Your task to perform on an android device: Search for Italian restaurants on Maps Image 0: 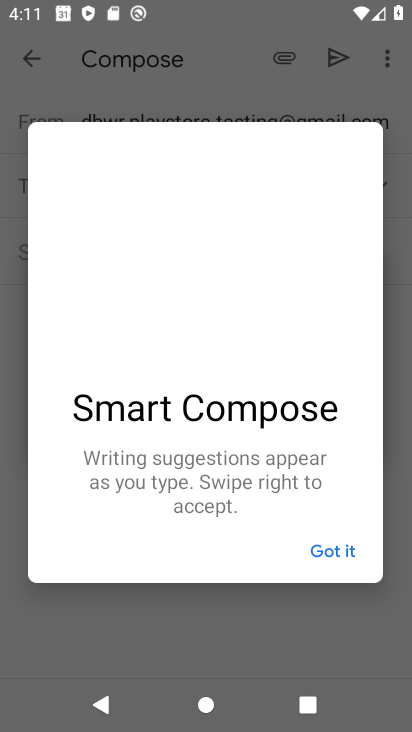
Step 0: press home button
Your task to perform on an android device: Search for Italian restaurants on Maps Image 1: 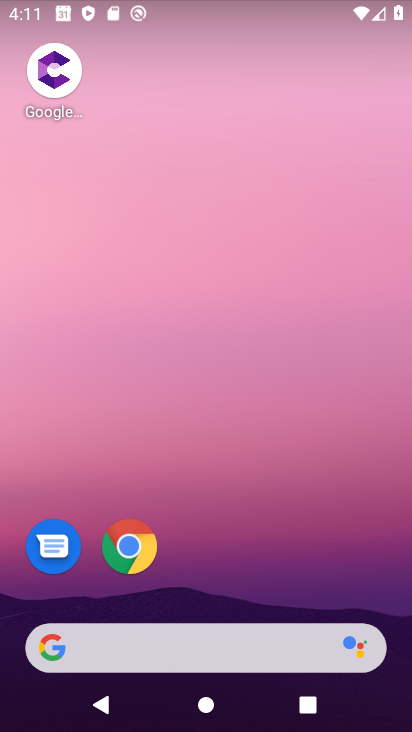
Step 1: drag from (205, 585) to (229, 194)
Your task to perform on an android device: Search for Italian restaurants on Maps Image 2: 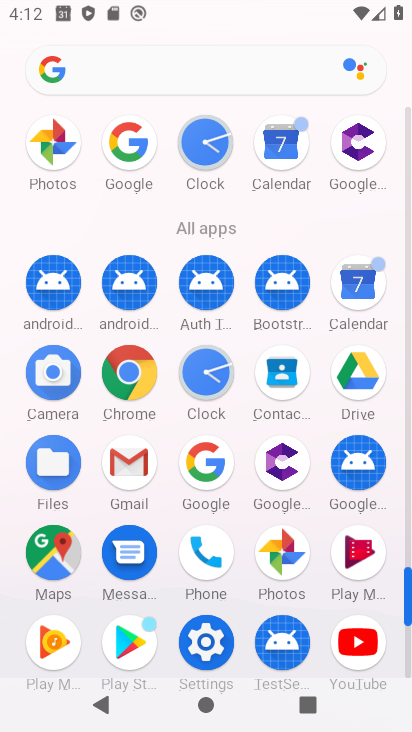
Step 2: click (40, 562)
Your task to perform on an android device: Search for Italian restaurants on Maps Image 3: 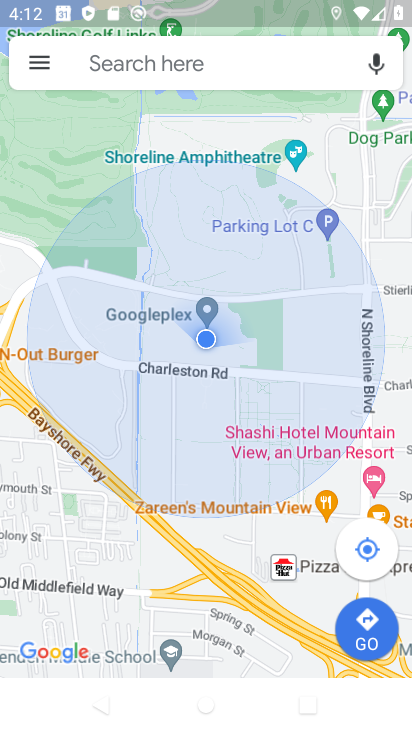
Step 3: click (87, 79)
Your task to perform on an android device: Search for Italian restaurants on Maps Image 4: 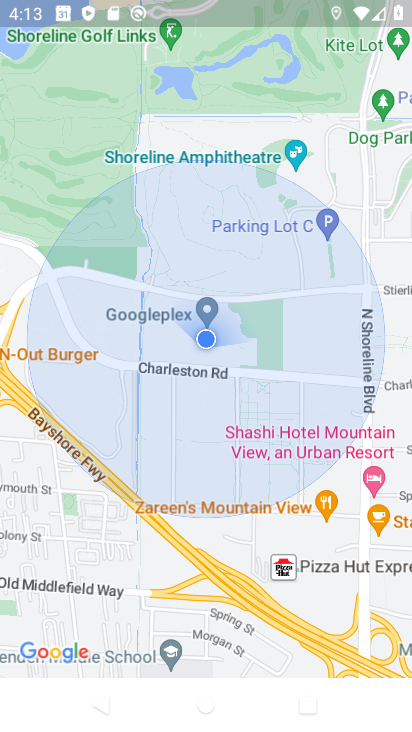
Step 4: drag from (189, 566) to (257, 158)
Your task to perform on an android device: Search for Italian restaurants on Maps Image 5: 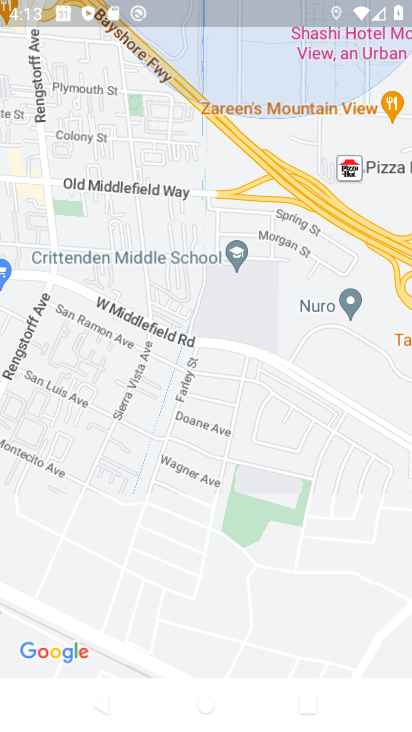
Step 5: drag from (251, 198) to (258, 729)
Your task to perform on an android device: Search for Italian restaurants on Maps Image 6: 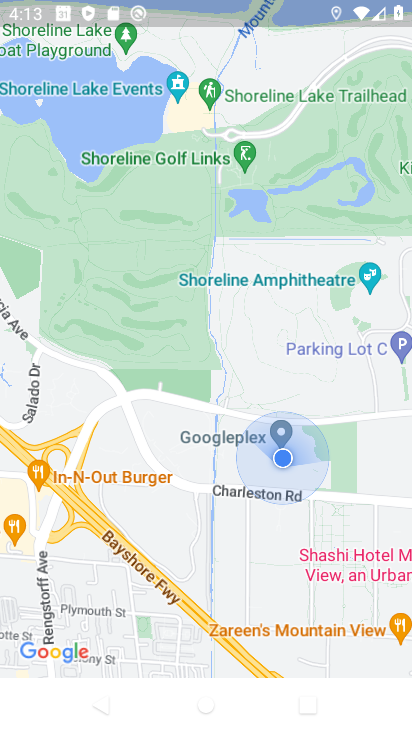
Step 6: drag from (255, 191) to (236, 714)
Your task to perform on an android device: Search for Italian restaurants on Maps Image 7: 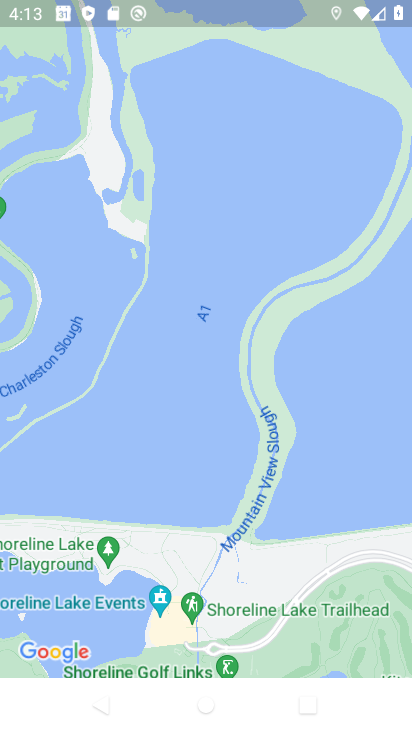
Step 7: press back button
Your task to perform on an android device: Search for Italian restaurants on Maps Image 8: 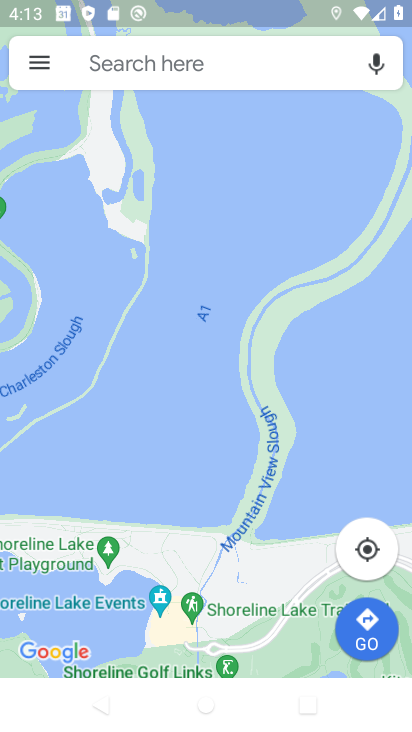
Step 8: click (183, 66)
Your task to perform on an android device: Search for Italian restaurants on Maps Image 9: 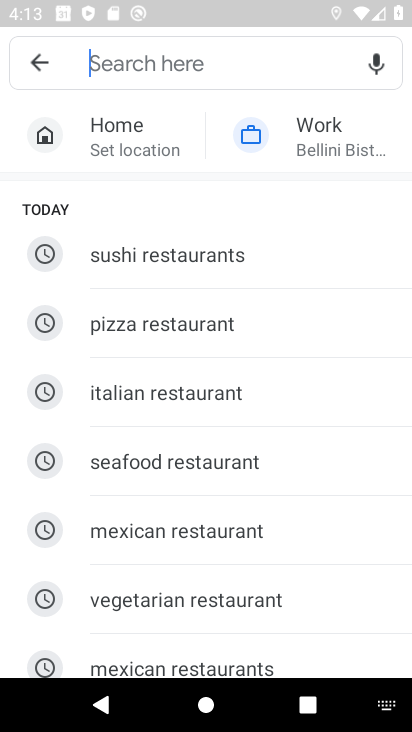
Step 9: click (168, 384)
Your task to perform on an android device: Search for Italian restaurants on Maps Image 10: 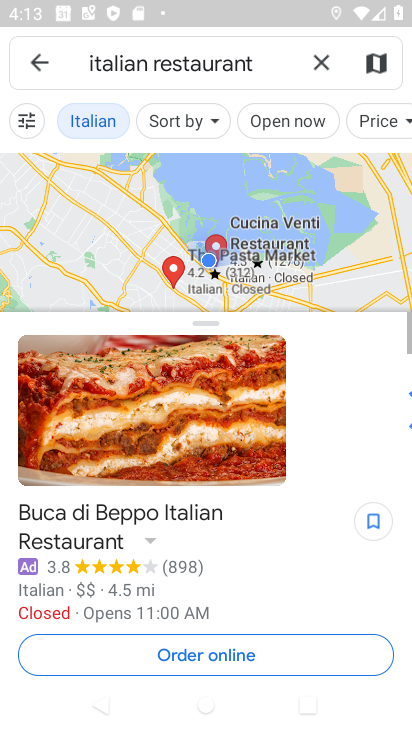
Step 10: task complete